Your task to perform on an android device: What's the weather like in Moscow? Image 0: 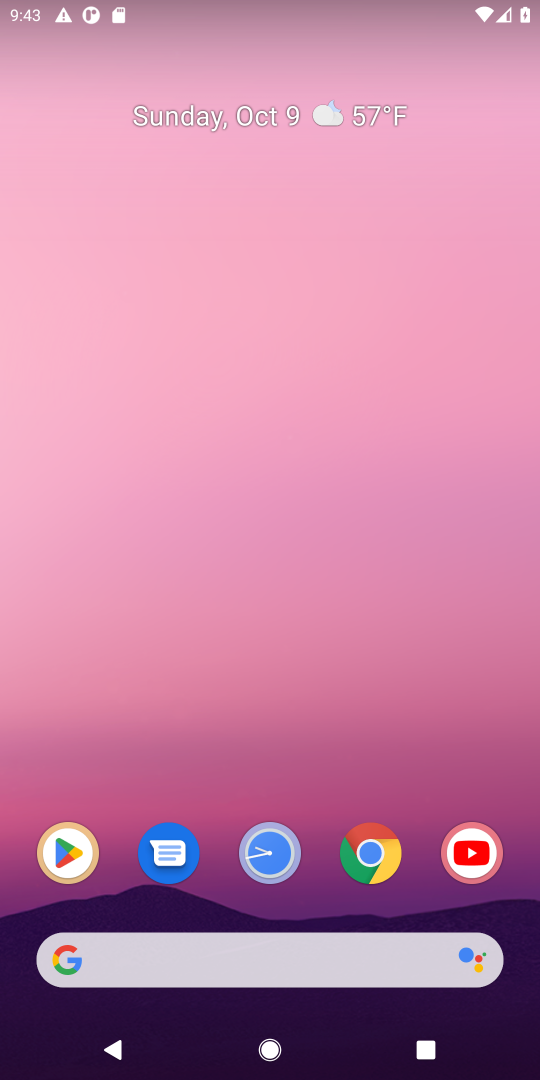
Step 0: type "What's the weather like in Moscow?"
Your task to perform on an android device: What's the weather like in Moscow? Image 1: 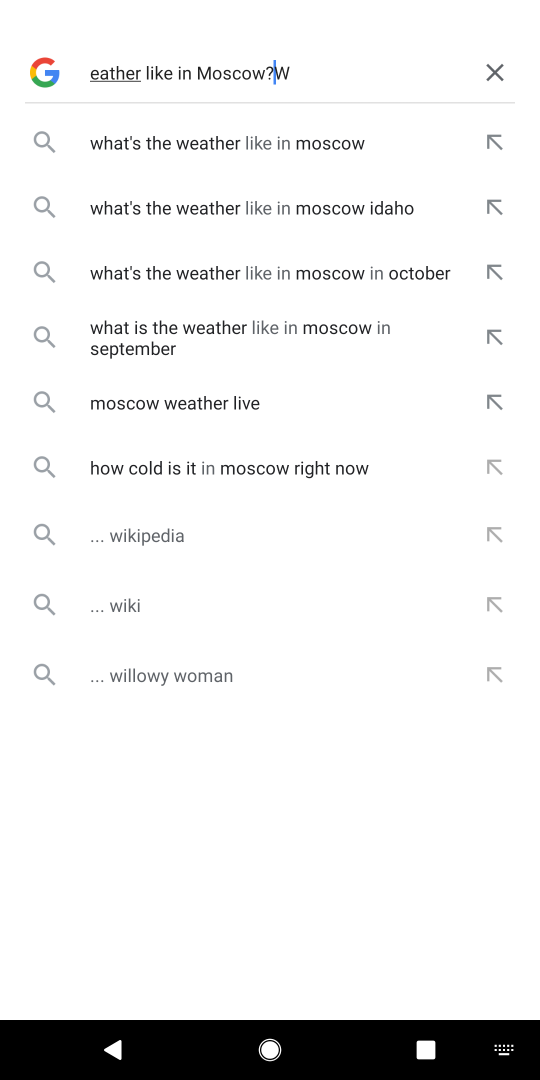
Step 1: press enter
Your task to perform on an android device: What's the weather like in Moscow? Image 2: 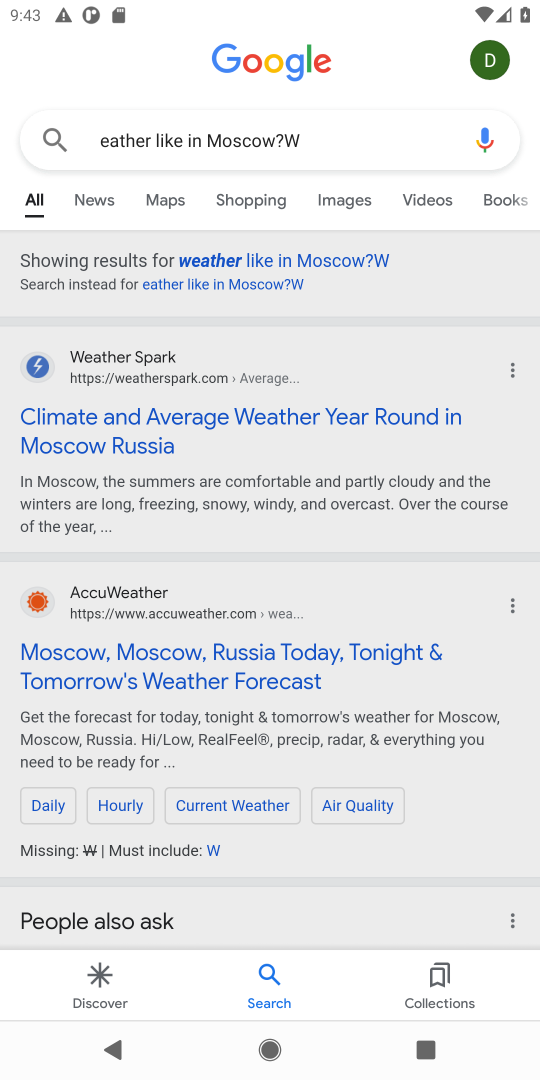
Step 2: click (197, 670)
Your task to perform on an android device: What's the weather like in Moscow? Image 3: 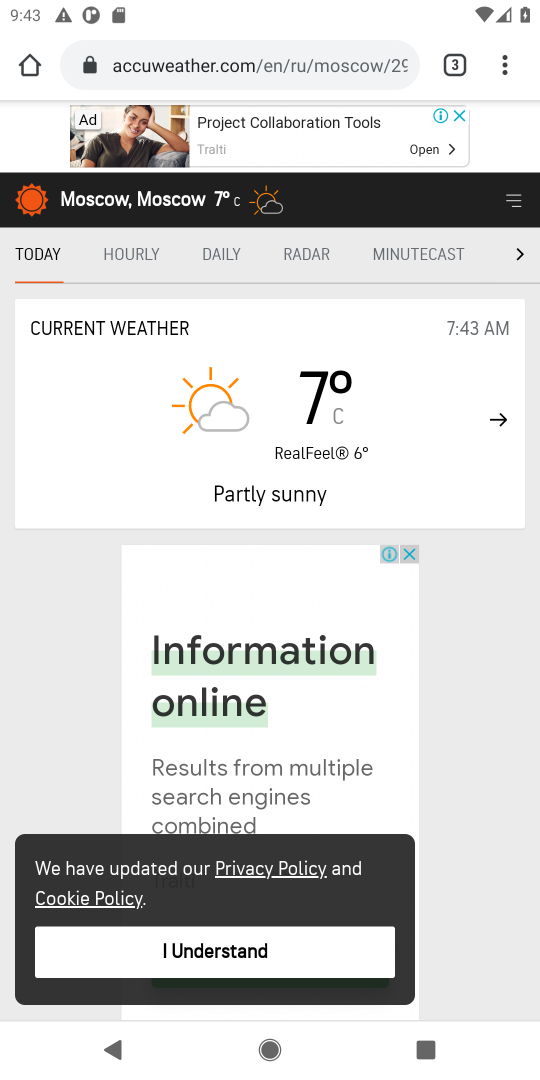
Step 3: drag from (268, 845) to (342, 378)
Your task to perform on an android device: What's the weather like in Moscow? Image 4: 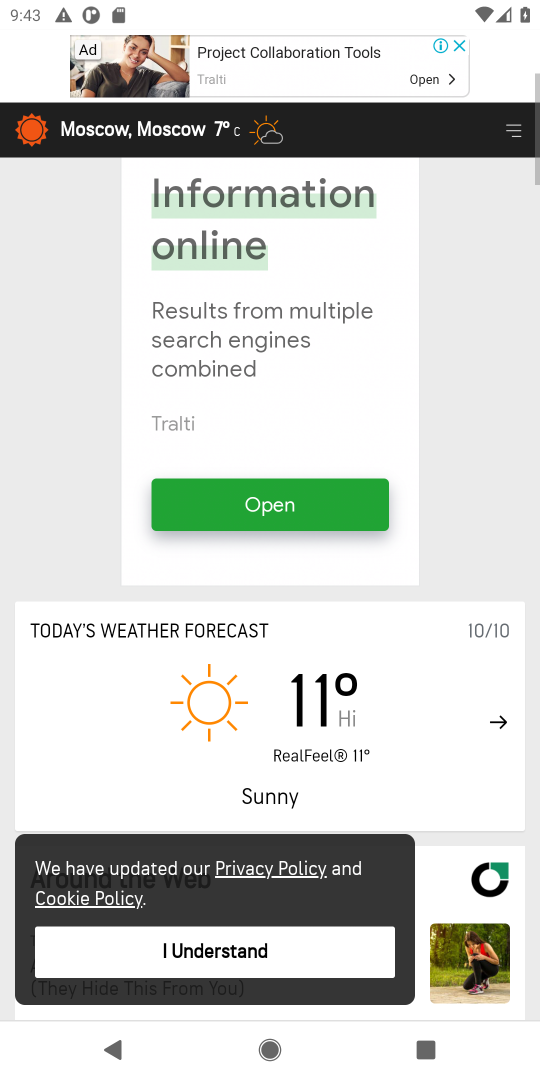
Step 4: drag from (399, 601) to (415, 380)
Your task to perform on an android device: What's the weather like in Moscow? Image 5: 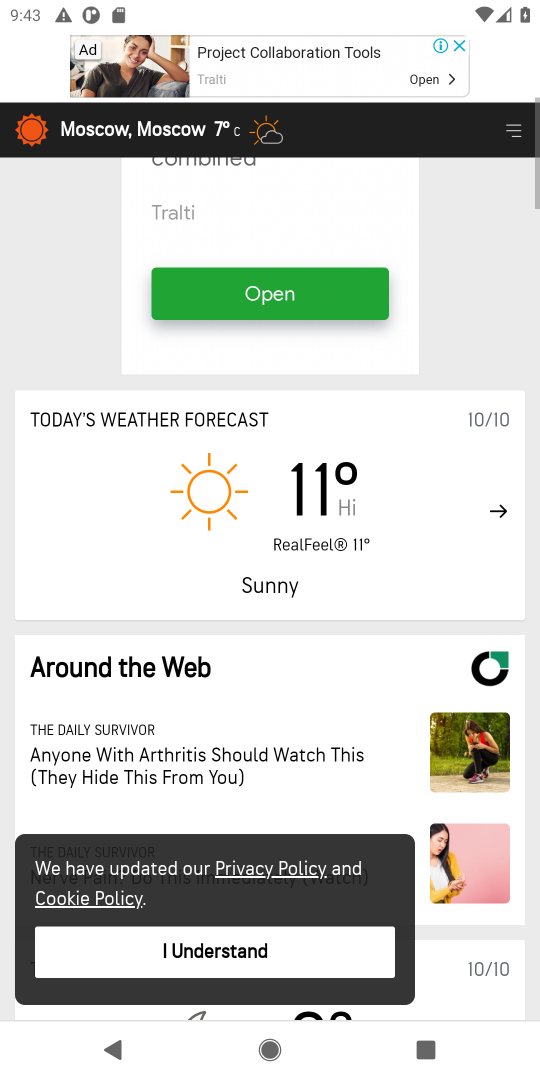
Step 5: drag from (400, 673) to (428, 320)
Your task to perform on an android device: What's the weather like in Moscow? Image 6: 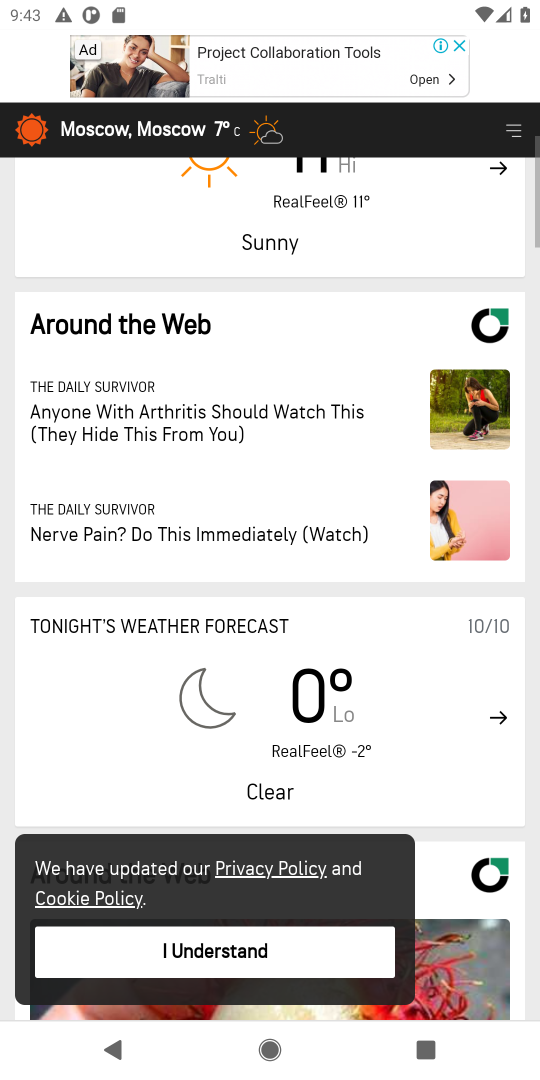
Step 6: drag from (388, 576) to (414, 293)
Your task to perform on an android device: What's the weather like in Moscow? Image 7: 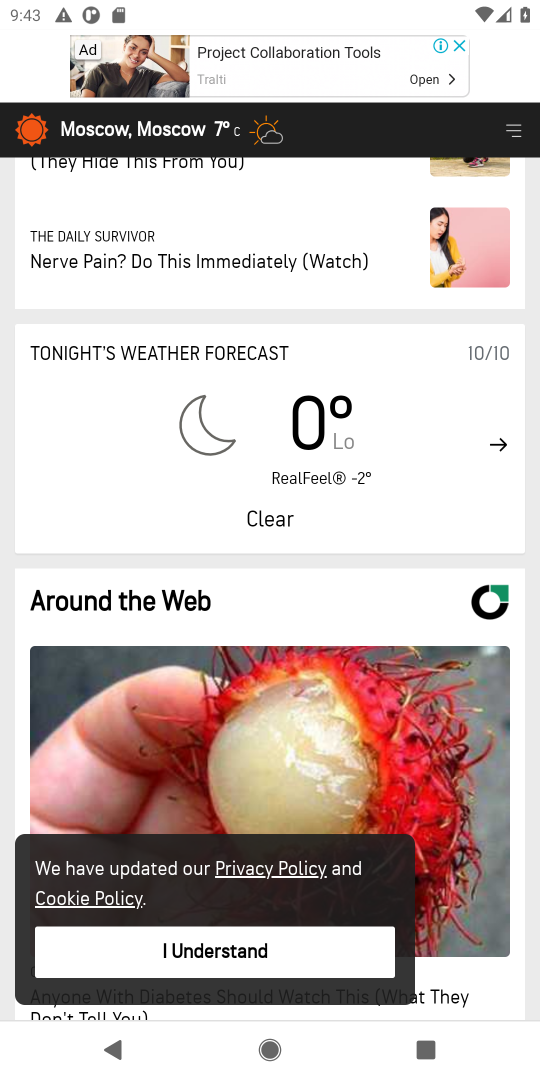
Step 7: click (421, 285)
Your task to perform on an android device: What's the weather like in Moscow? Image 8: 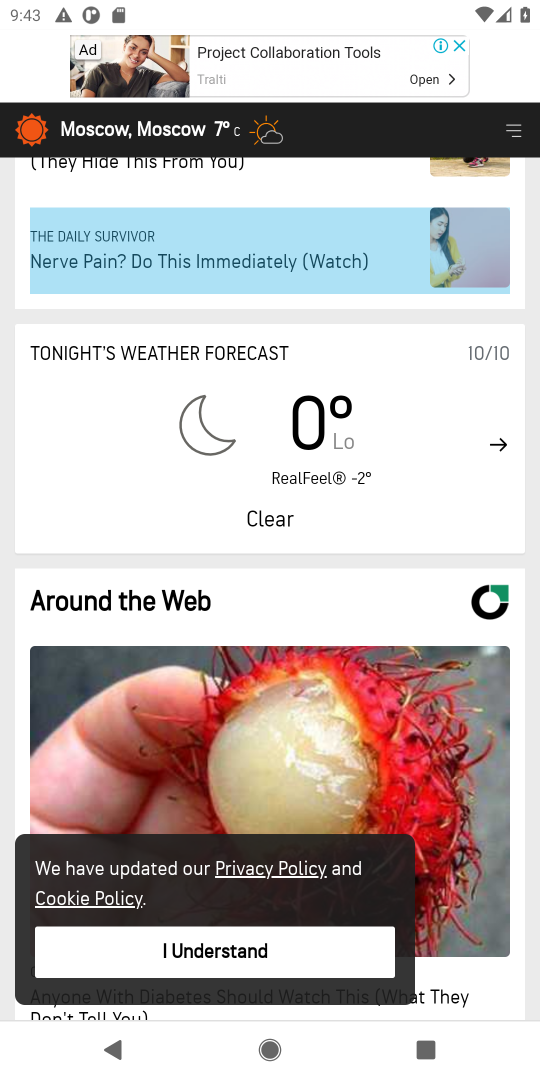
Step 8: drag from (415, 469) to (411, 259)
Your task to perform on an android device: What's the weather like in Moscow? Image 9: 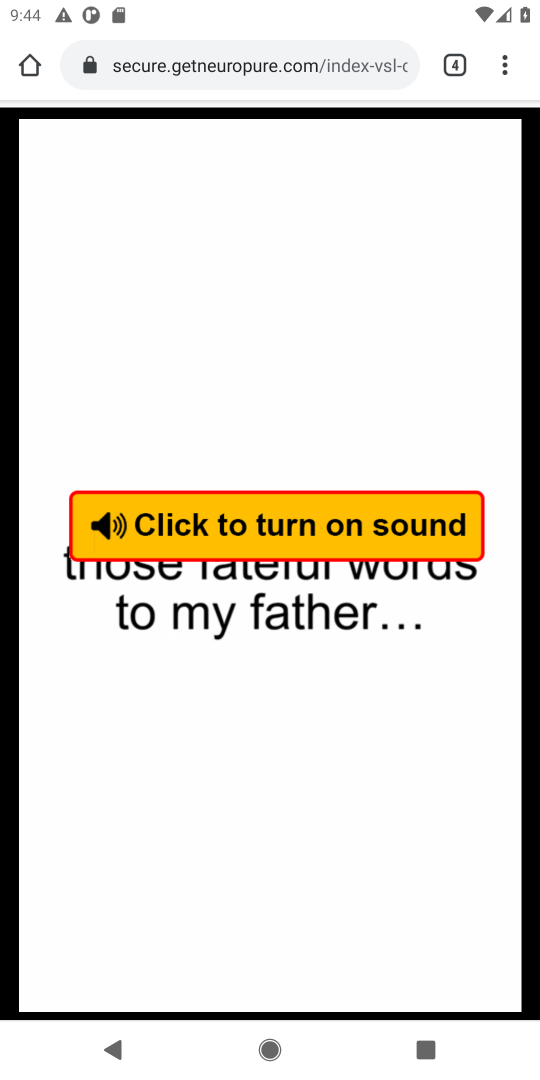
Step 9: drag from (421, 700) to (428, 253)
Your task to perform on an android device: What's the weather like in Moscow? Image 10: 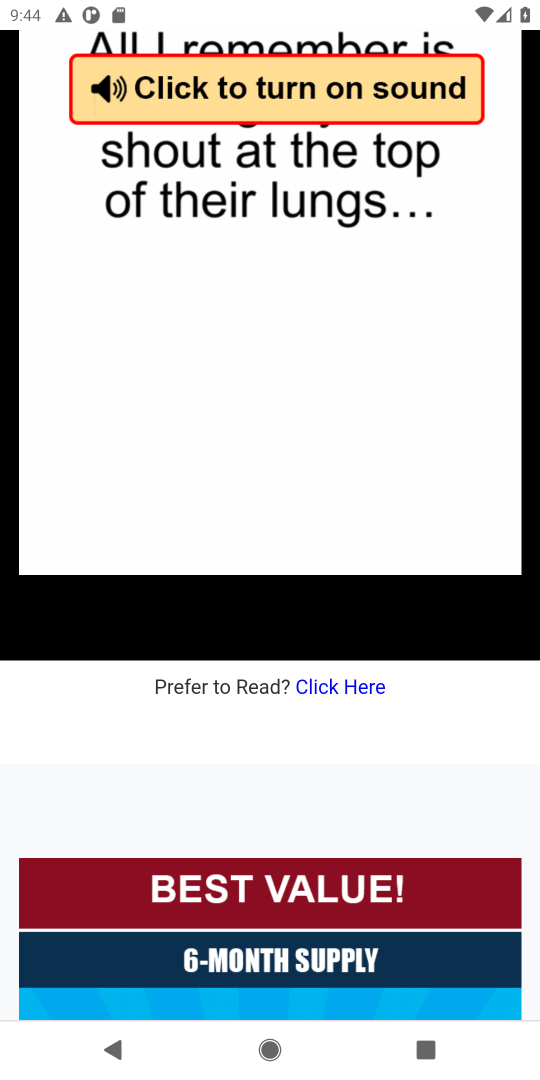
Step 10: press back button
Your task to perform on an android device: What's the weather like in Moscow? Image 11: 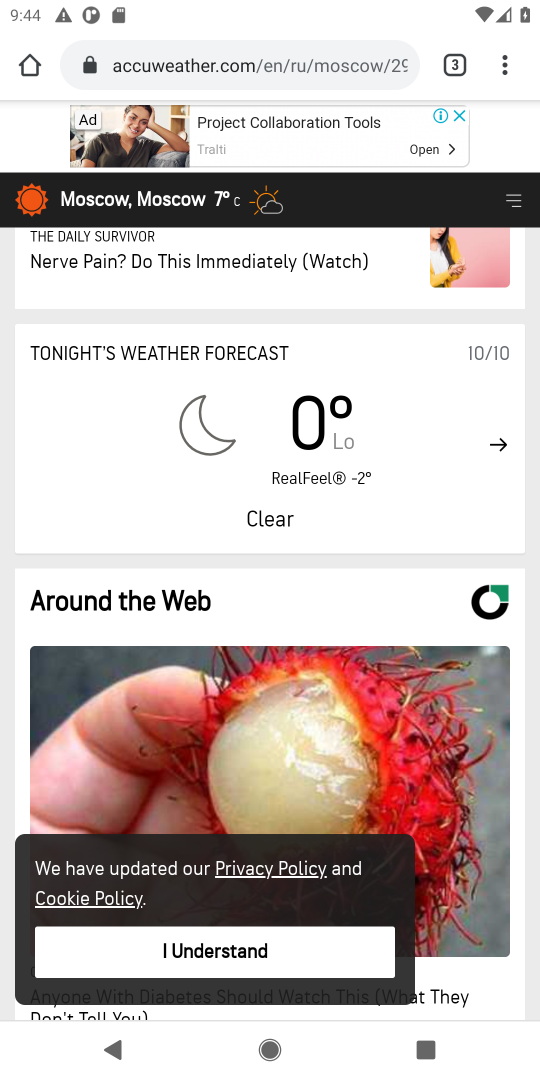
Step 11: press back button
Your task to perform on an android device: What's the weather like in Moscow? Image 12: 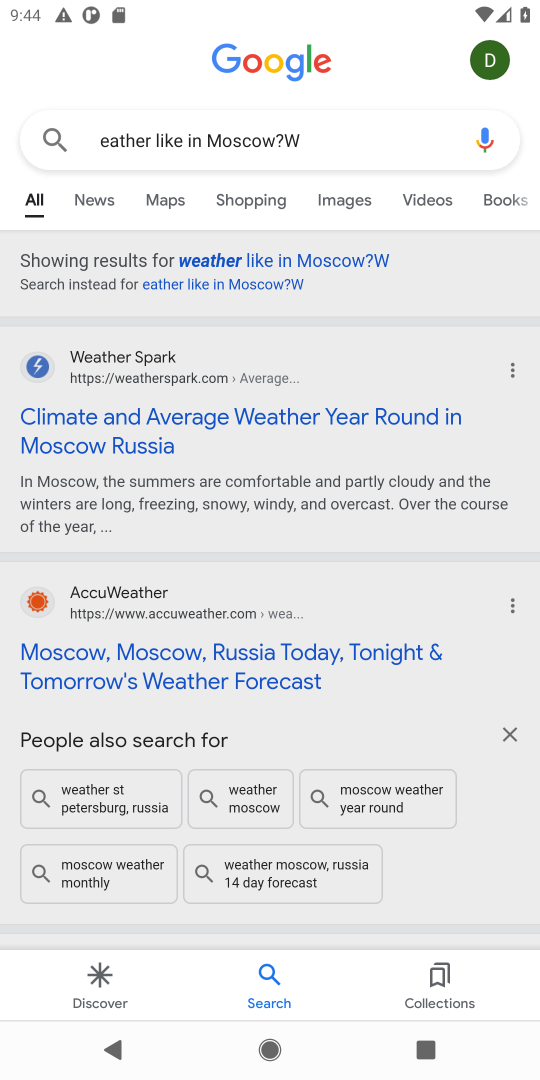
Step 12: drag from (164, 667) to (219, 256)
Your task to perform on an android device: What's the weather like in Moscow? Image 13: 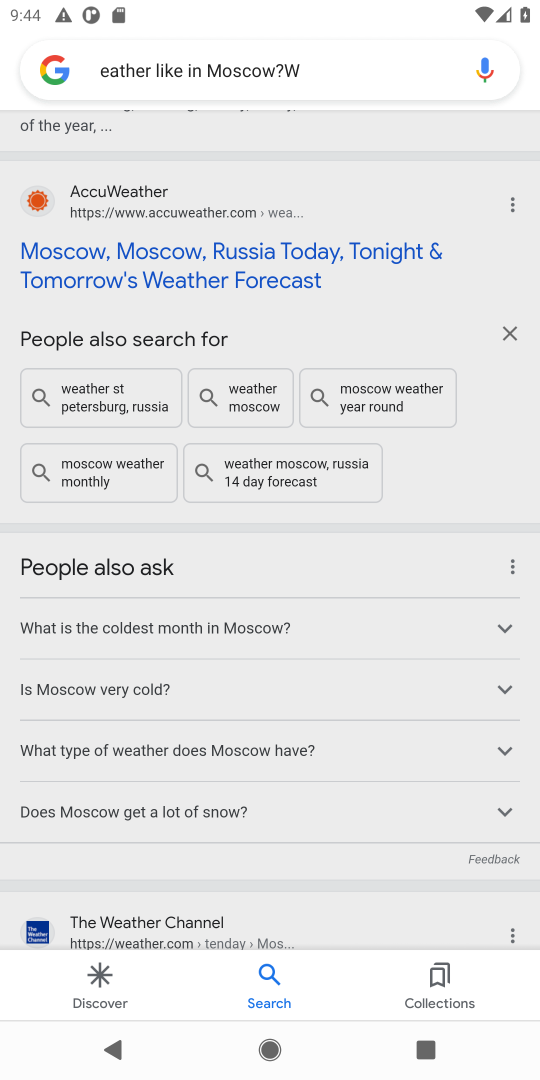
Step 13: drag from (131, 876) to (238, 319)
Your task to perform on an android device: What's the weather like in Moscow? Image 14: 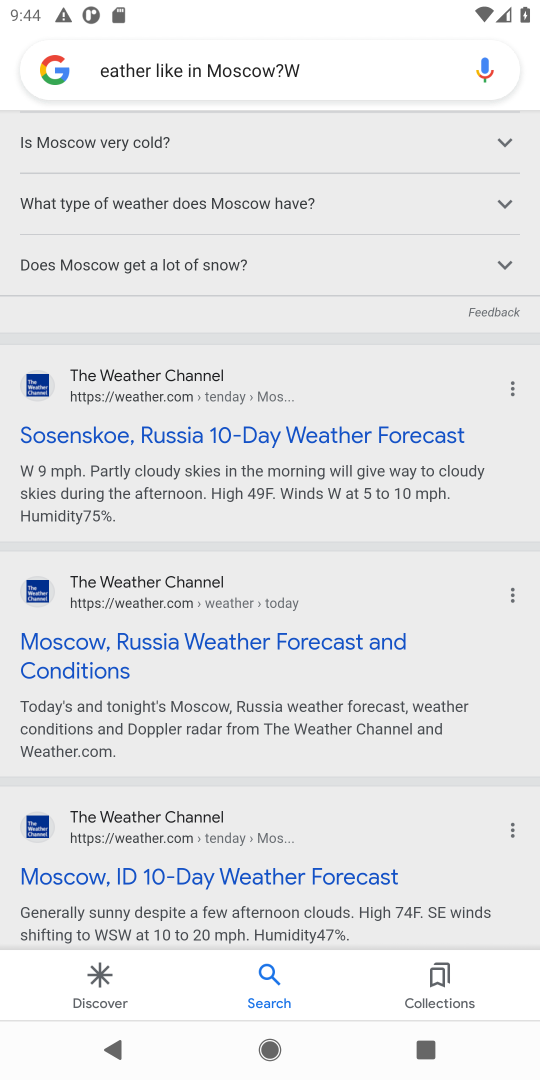
Step 14: click (185, 441)
Your task to perform on an android device: What's the weather like in Moscow? Image 15: 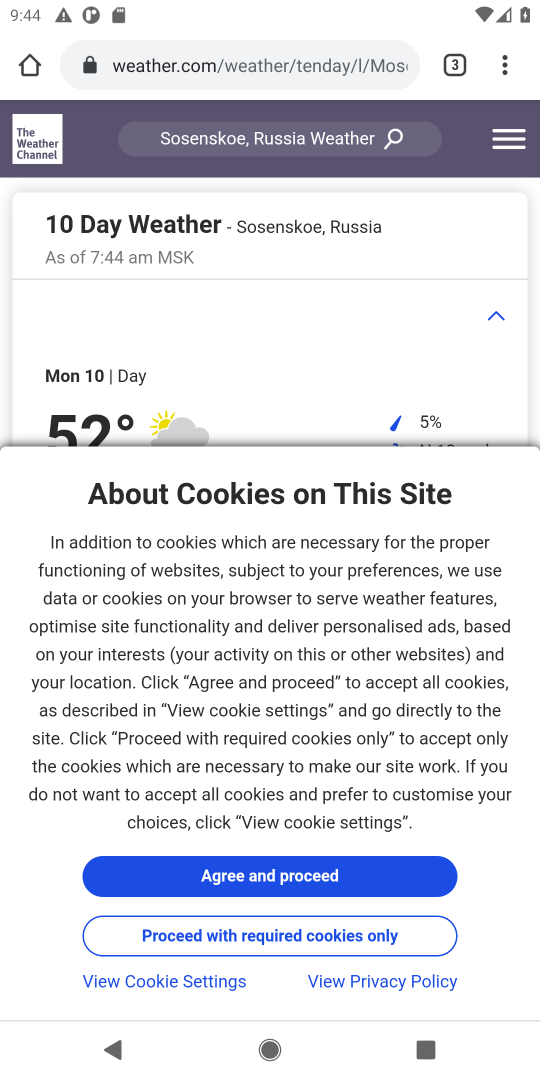
Step 15: click (173, 877)
Your task to perform on an android device: What's the weather like in Moscow? Image 16: 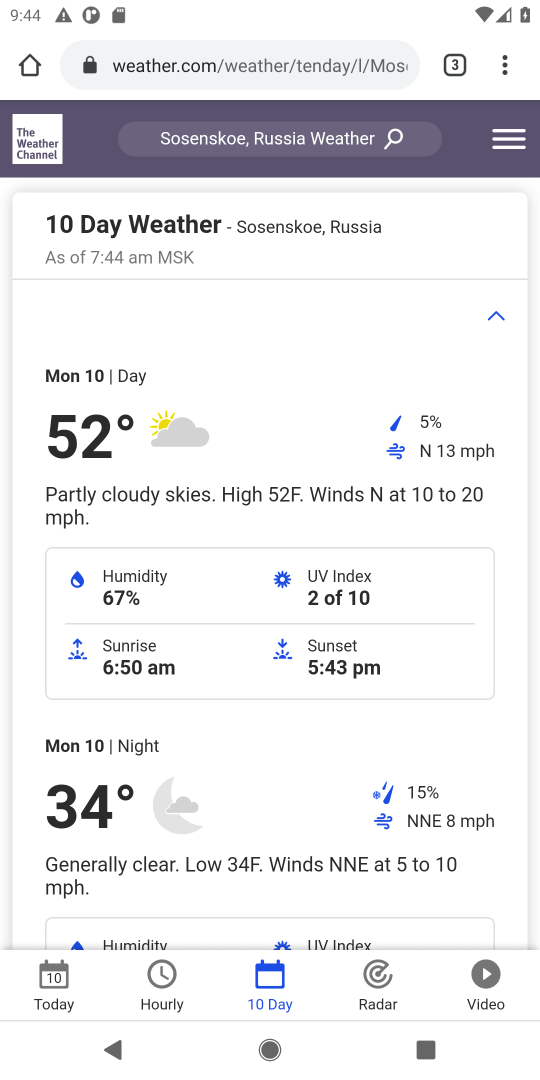
Step 16: drag from (224, 846) to (391, 271)
Your task to perform on an android device: What's the weather like in Moscow? Image 17: 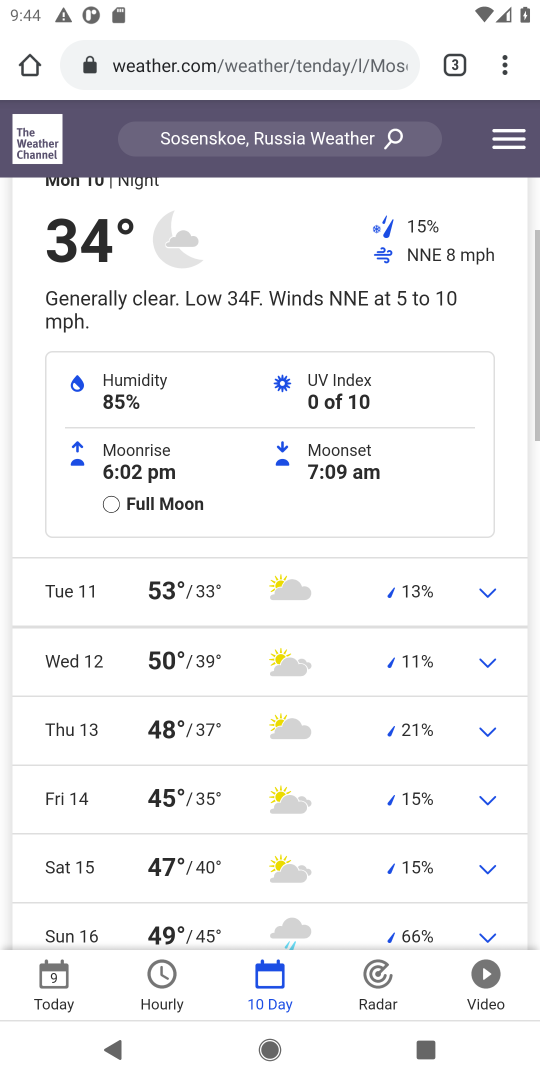
Step 17: drag from (370, 322) to (364, 247)
Your task to perform on an android device: What's the weather like in Moscow? Image 18: 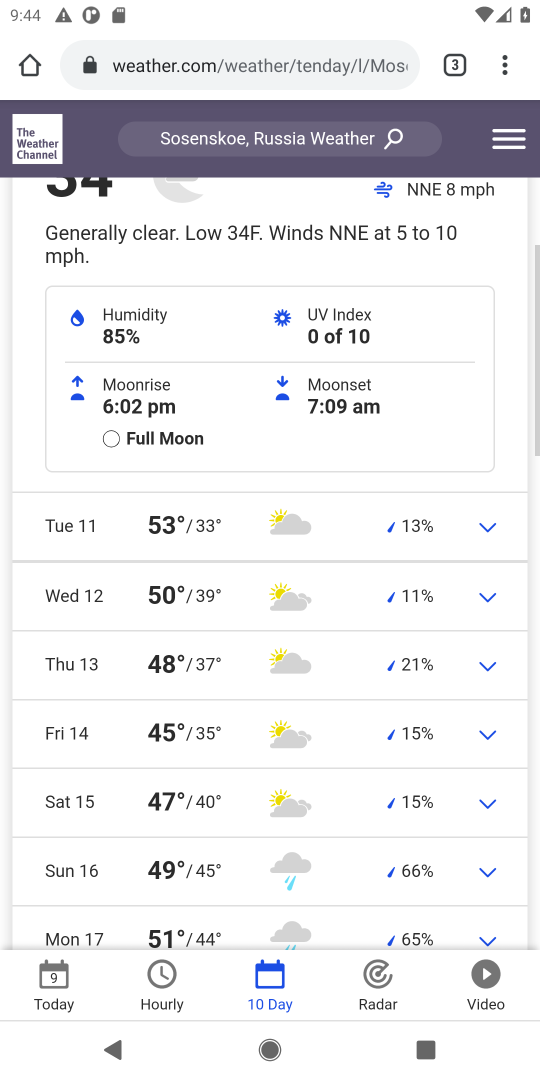
Step 18: drag from (371, 683) to (392, 306)
Your task to perform on an android device: What's the weather like in Moscow? Image 19: 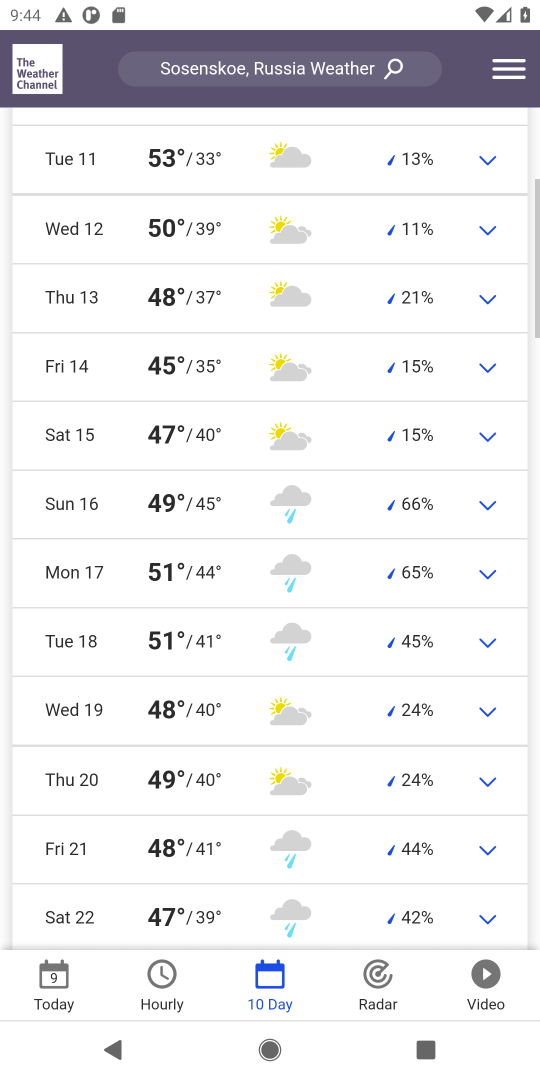
Step 19: drag from (379, 428) to (398, 231)
Your task to perform on an android device: What's the weather like in Moscow? Image 20: 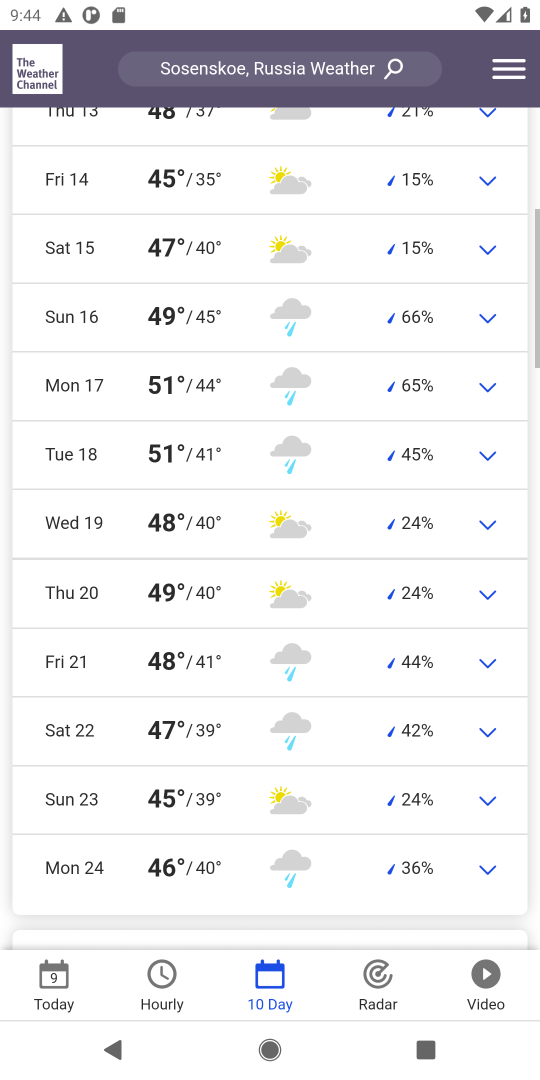
Step 20: drag from (372, 557) to (381, 231)
Your task to perform on an android device: What's the weather like in Moscow? Image 21: 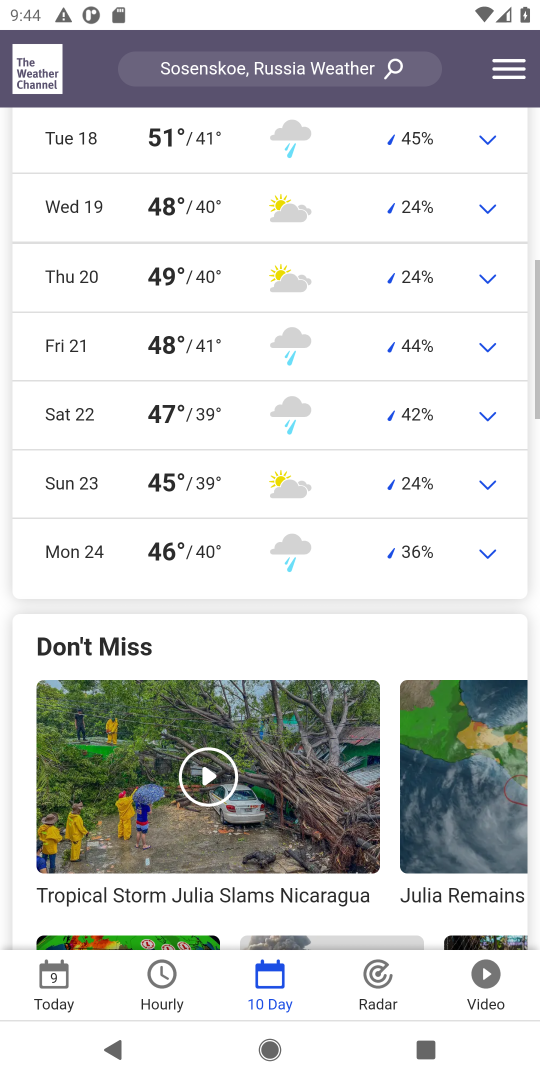
Step 21: drag from (386, 567) to (393, 352)
Your task to perform on an android device: What's the weather like in Moscow? Image 22: 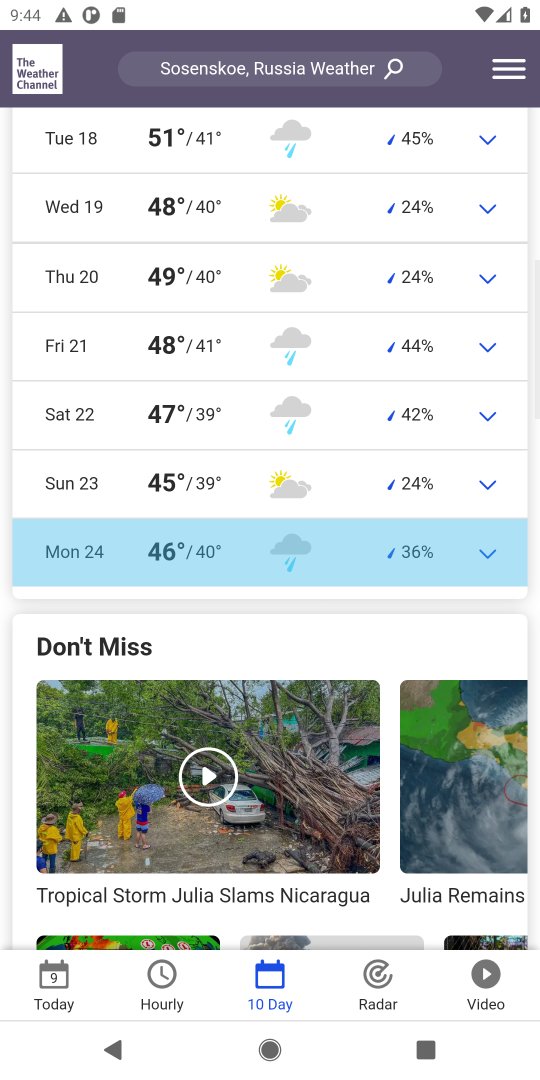
Step 22: click (334, 310)
Your task to perform on an android device: What's the weather like in Moscow? Image 23: 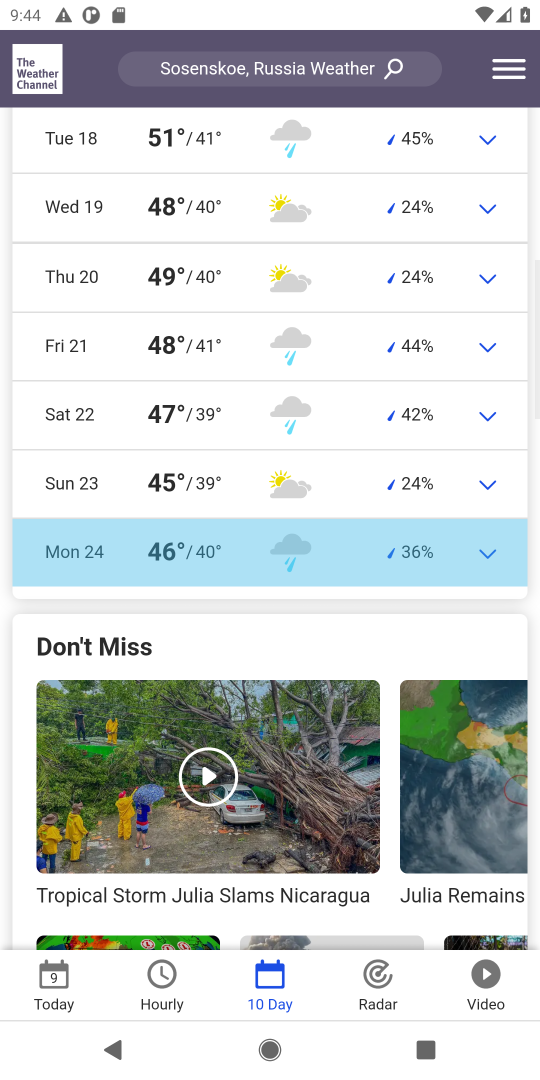
Step 23: drag from (323, 402) to (346, 252)
Your task to perform on an android device: What's the weather like in Moscow? Image 24: 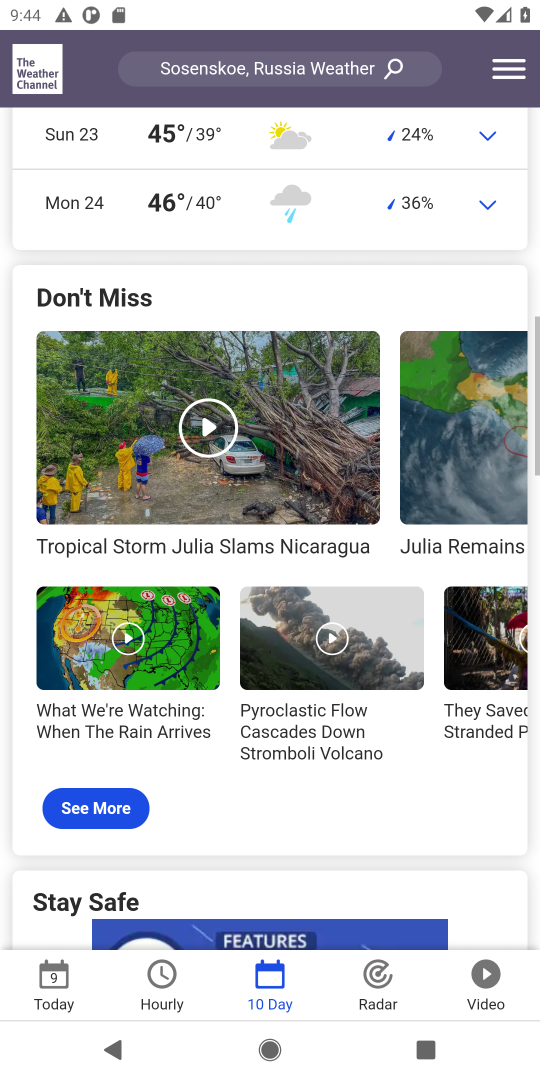
Step 24: drag from (303, 506) to (317, 266)
Your task to perform on an android device: What's the weather like in Moscow? Image 25: 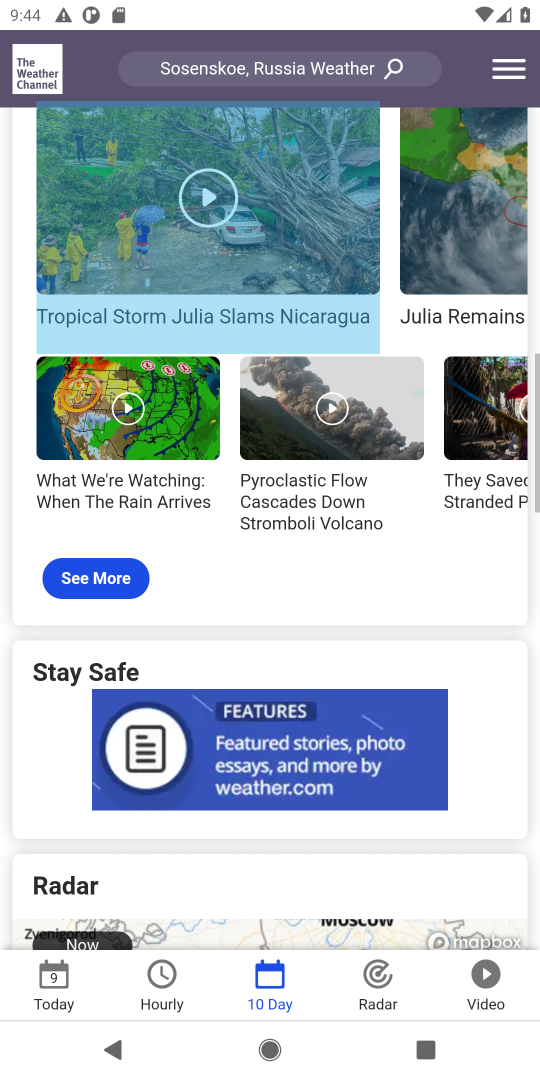
Step 25: drag from (280, 414) to (311, 237)
Your task to perform on an android device: What's the weather like in Moscow? Image 26: 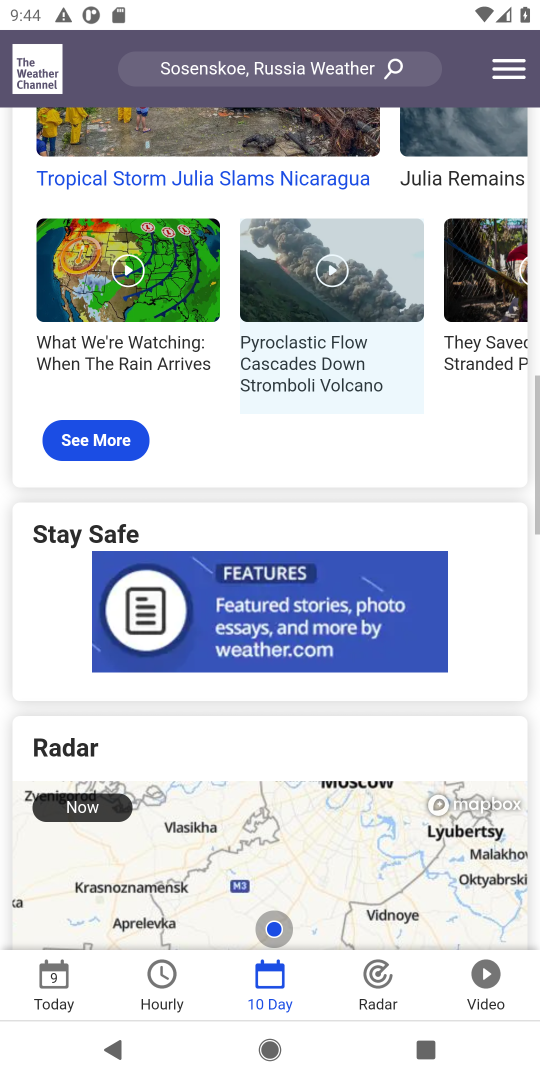
Step 26: drag from (251, 665) to (311, 249)
Your task to perform on an android device: What's the weather like in Moscow? Image 27: 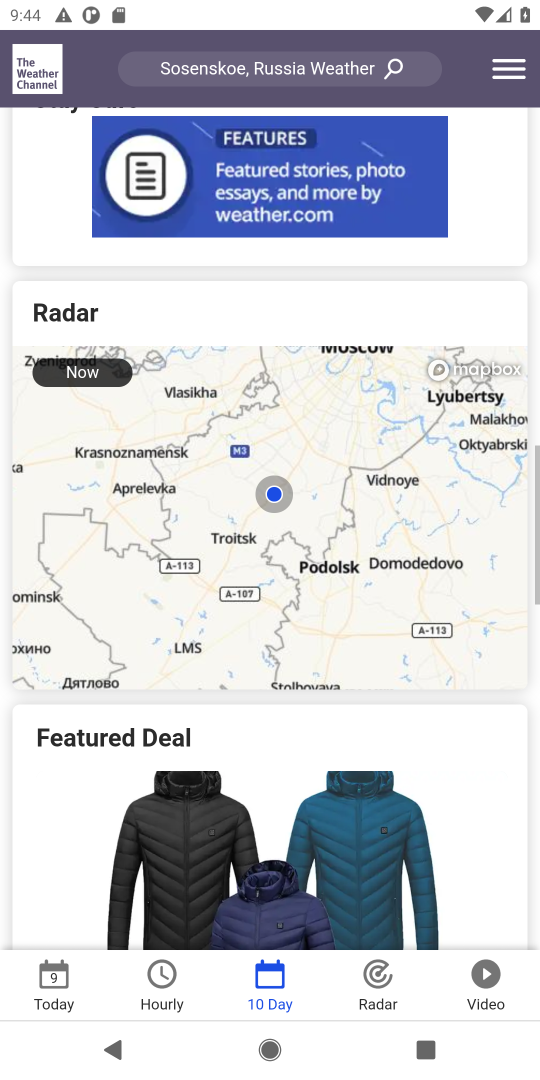
Step 27: drag from (261, 682) to (304, 288)
Your task to perform on an android device: What's the weather like in Moscow? Image 28: 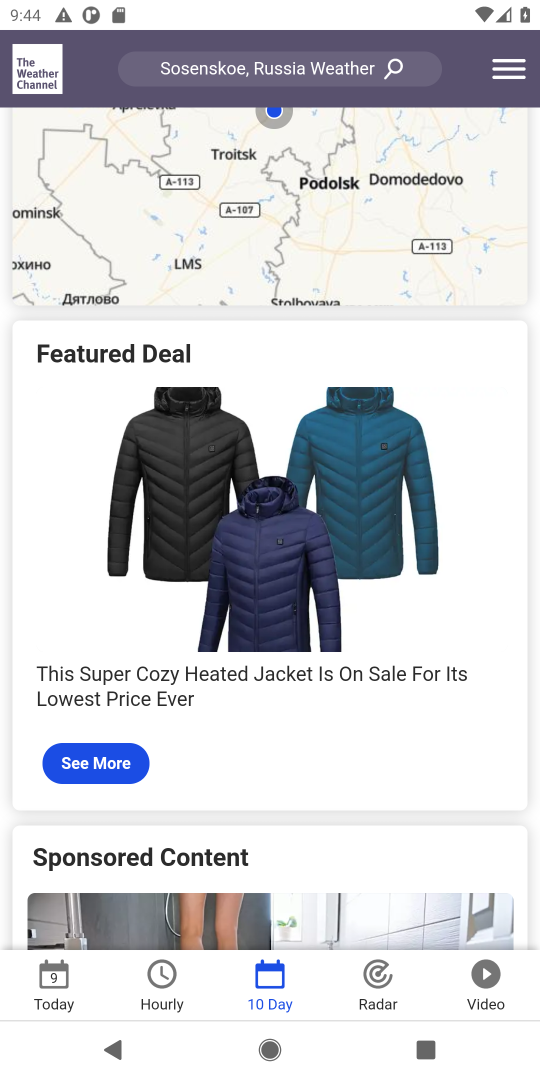
Step 28: drag from (280, 520) to (310, 254)
Your task to perform on an android device: What's the weather like in Moscow? Image 29: 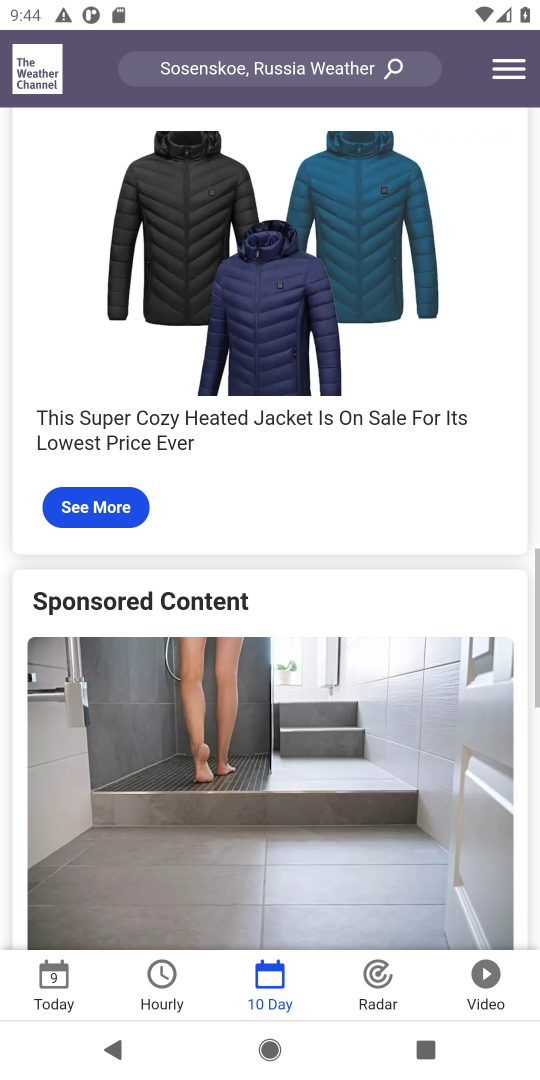
Step 29: drag from (279, 675) to (355, 279)
Your task to perform on an android device: What's the weather like in Moscow? Image 30: 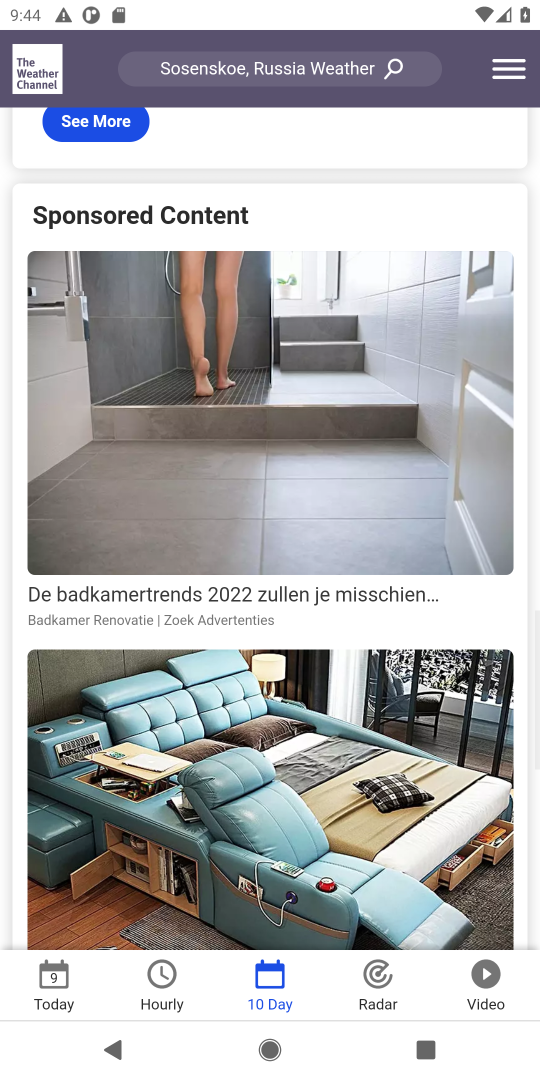
Step 30: press back button
Your task to perform on an android device: What's the weather like in Moscow? Image 31: 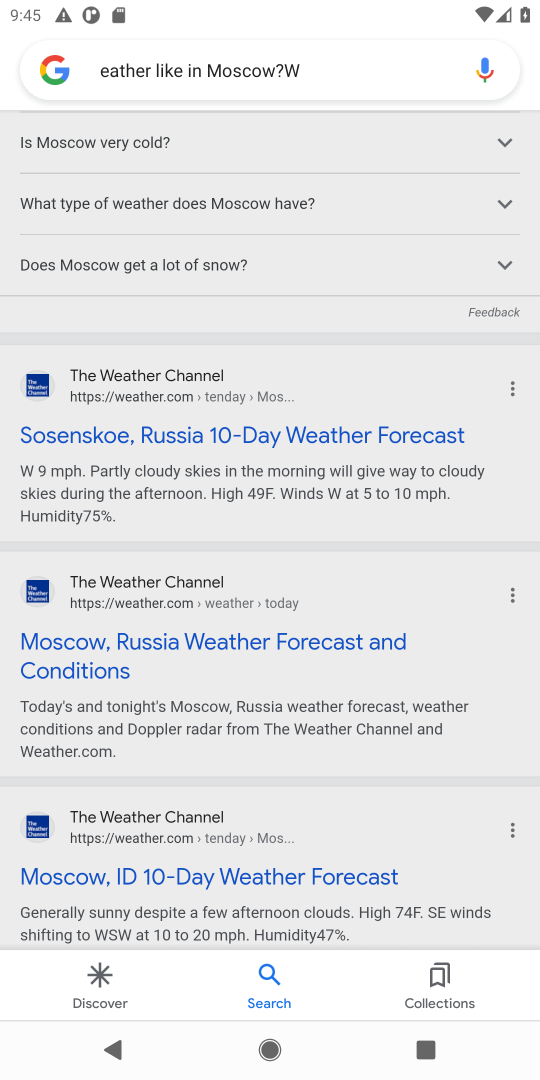
Step 31: drag from (219, 755) to (259, 325)
Your task to perform on an android device: What's the weather like in Moscow? Image 32: 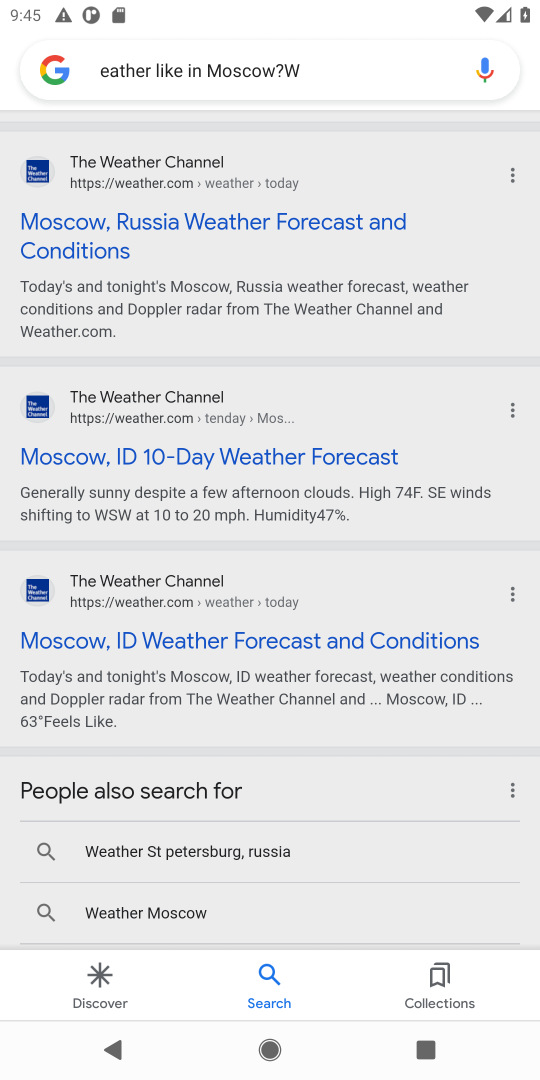
Step 32: click (259, 458)
Your task to perform on an android device: What's the weather like in Moscow? Image 33: 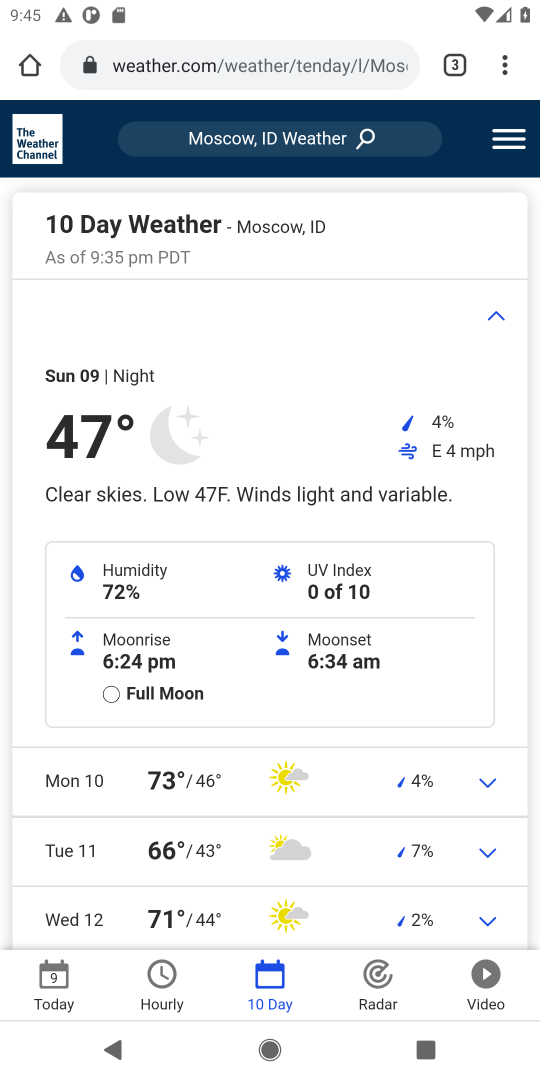
Step 33: drag from (300, 668) to (298, 412)
Your task to perform on an android device: What's the weather like in Moscow? Image 34: 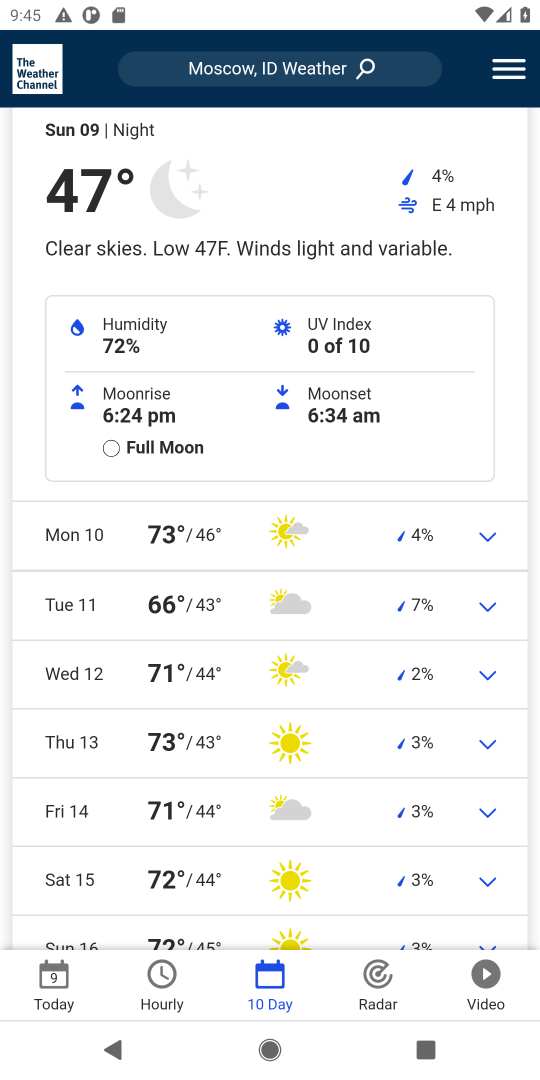
Step 34: drag from (154, 698) to (332, 106)
Your task to perform on an android device: What's the weather like in Moscow? Image 35: 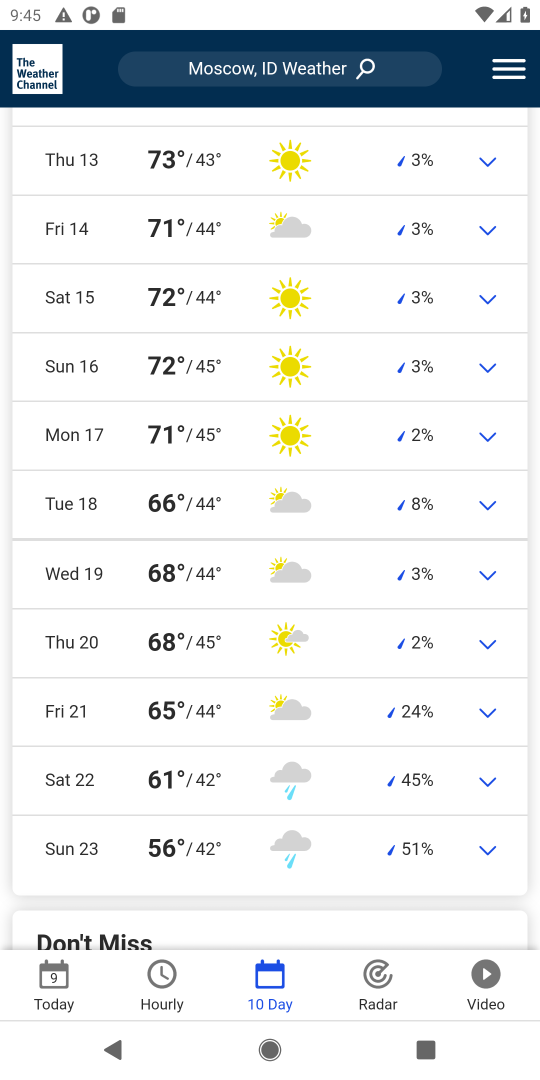
Step 35: drag from (384, 676) to (431, 109)
Your task to perform on an android device: What's the weather like in Moscow? Image 36: 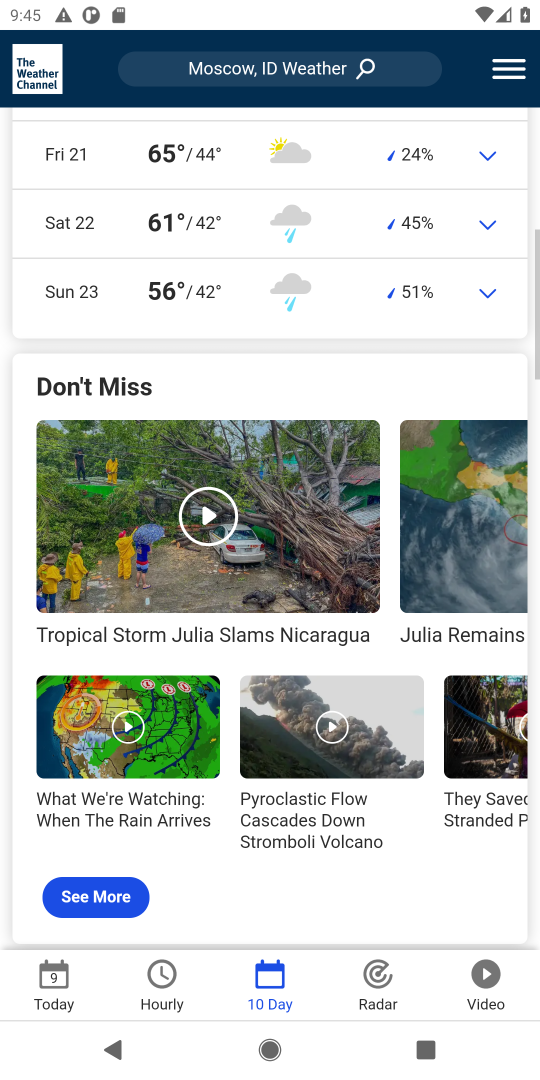
Step 36: drag from (306, 617) to (358, 165)
Your task to perform on an android device: What's the weather like in Moscow? Image 37: 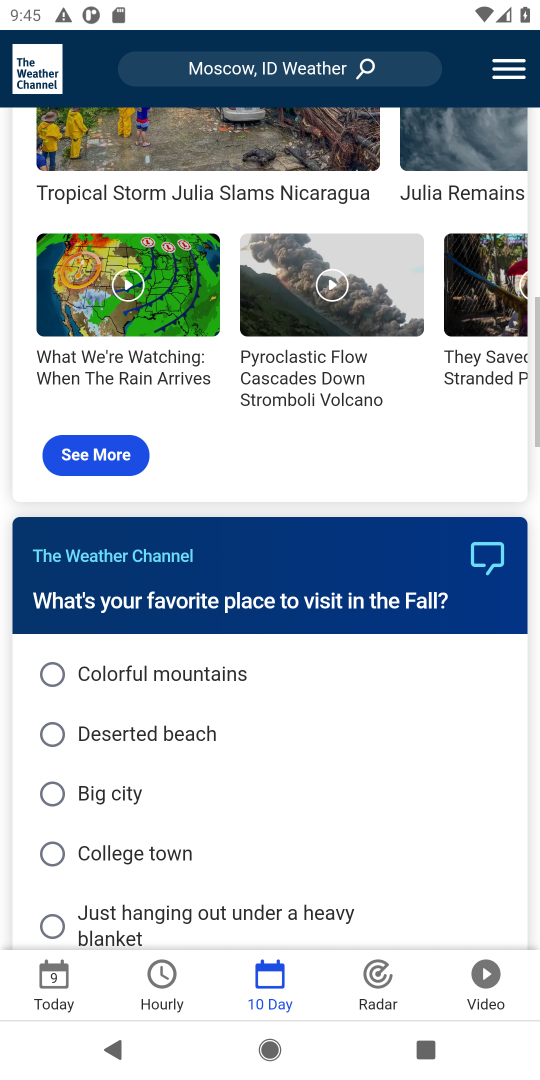
Step 37: drag from (355, 525) to (375, 313)
Your task to perform on an android device: What's the weather like in Moscow? Image 38: 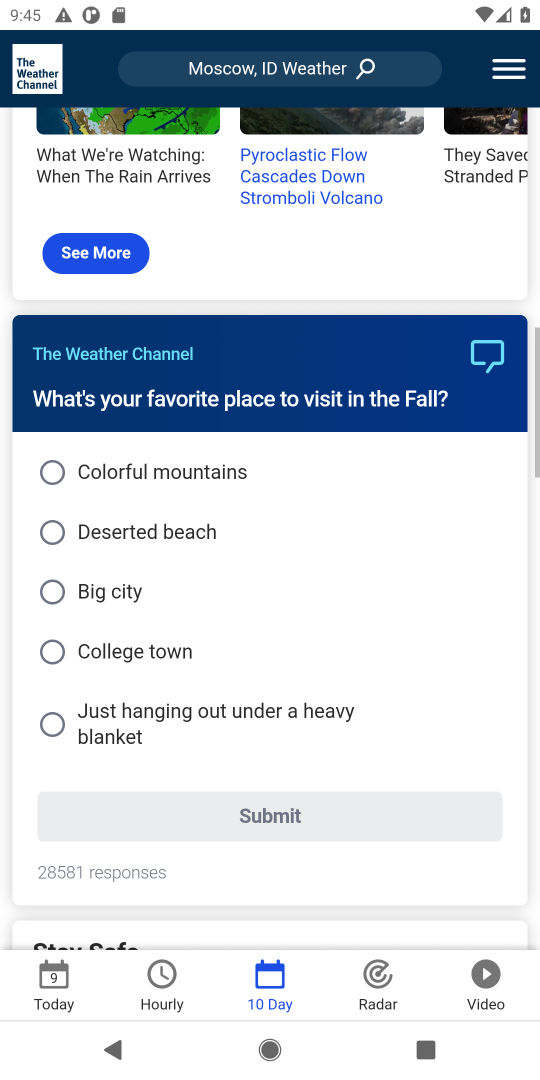
Step 38: drag from (367, 540) to (420, 214)
Your task to perform on an android device: What's the weather like in Moscow? Image 39: 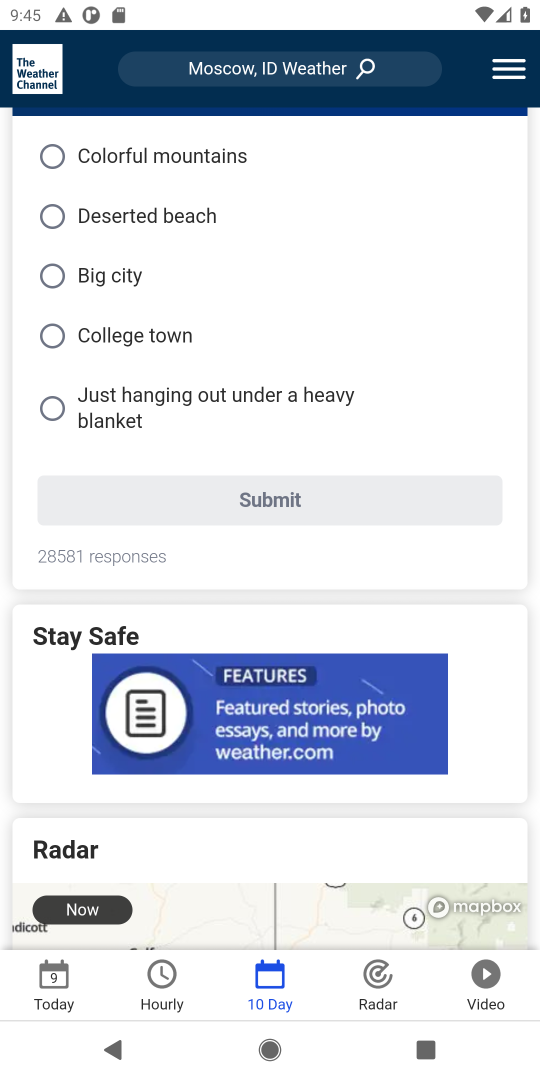
Step 39: drag from (398, 615) to (407, 169)
Your task to perform on an android device: What's the weather like in Moscow? Image 40: 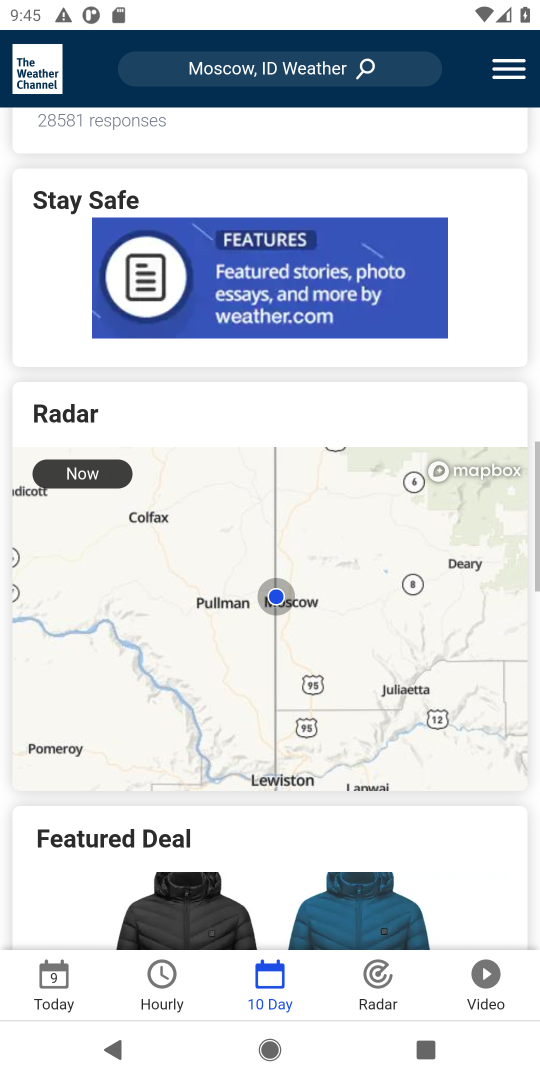
Step 40: drag from (396, 604) to (408, 300)
Your task to perform on an android device: What's the weather like in Moscow? Image 41: 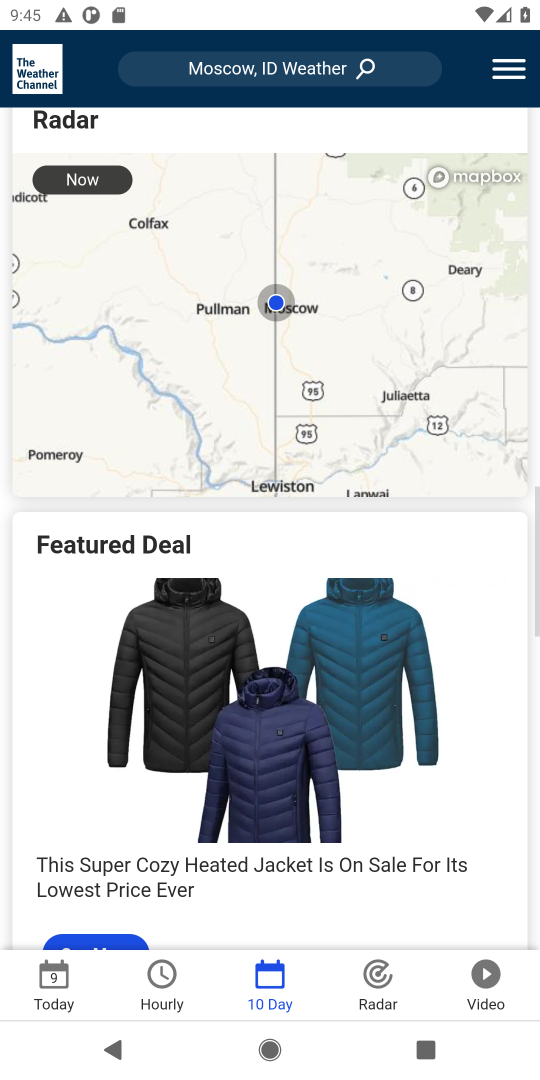
Step 41: press back button
Your task to perform on an android device: What's the weather like in Moscow? Image 42: 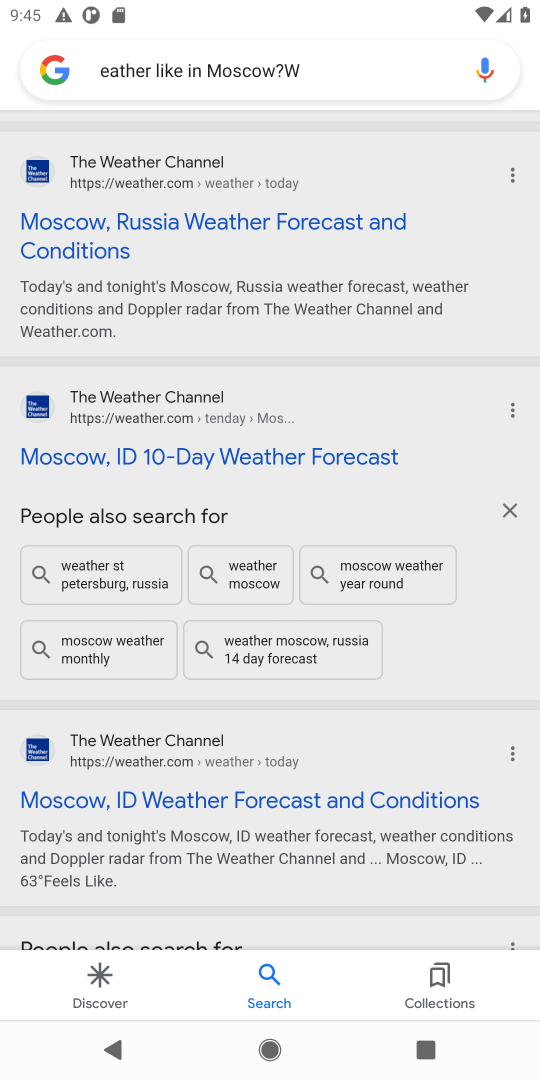
Step 42: drag from (259, 742) to (389, 217)
Your task to perform on an android device: What's the weather like in Moscow? Image 43: 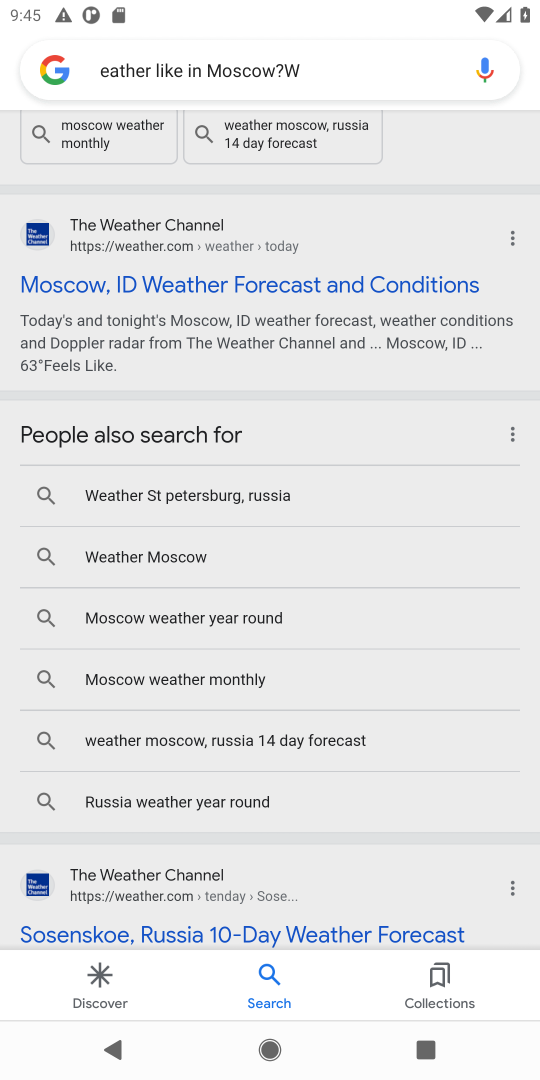
Step 43: drag from (332, 665) to (392, 215)
Your task to perform on an android device: What's the weather like in Moscow? Image 44: 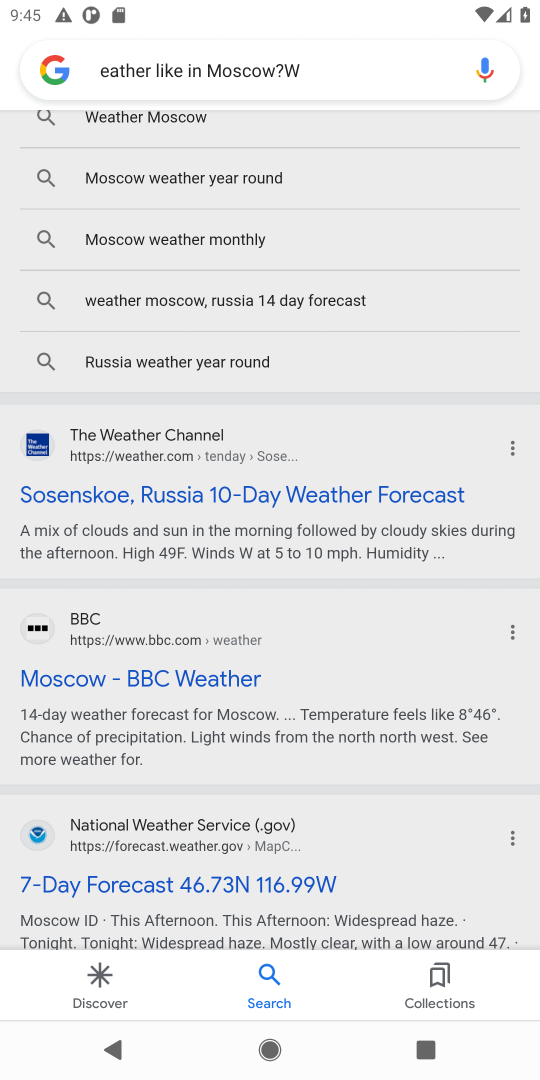
Step 44: click (149, 686)
Your task to perform on an android device: What's the weather like in Moscow? Image 45: 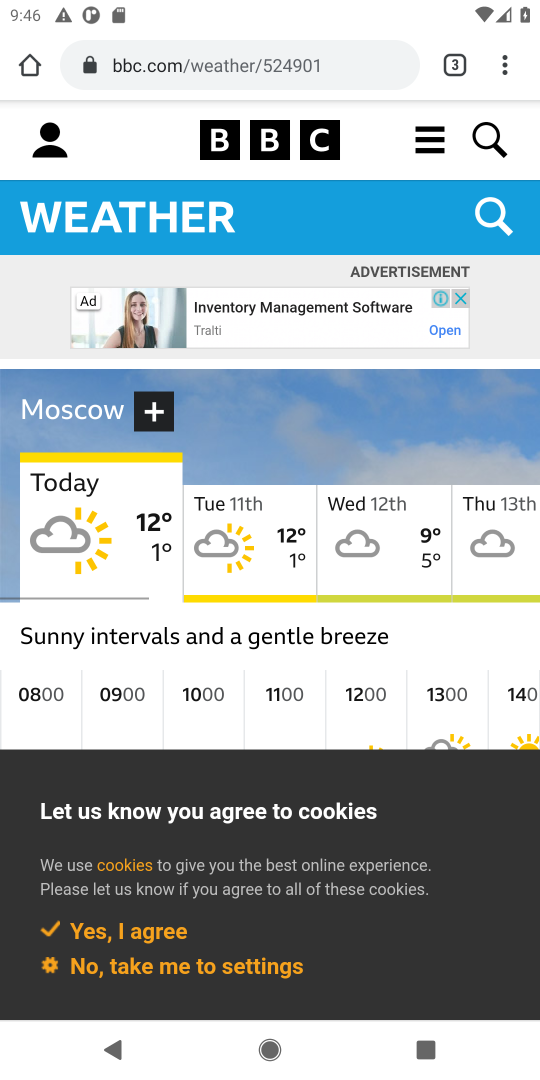
Step 45: task complete